Your task to perform on an android device: Open Amazon Image 0: 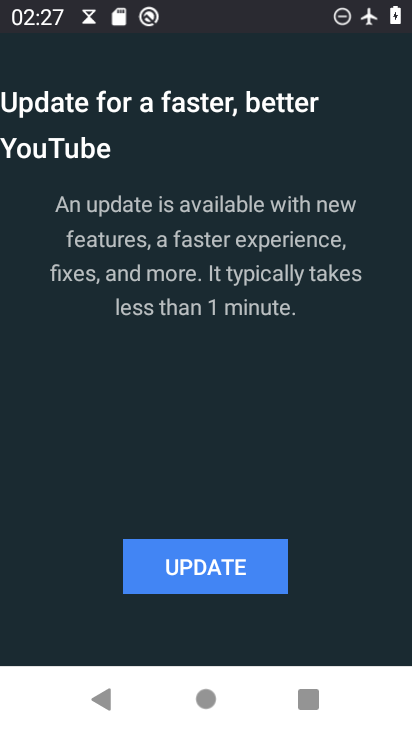
Step 0: press home button
Your task to perform on an android device: Open Amazon Image 1: 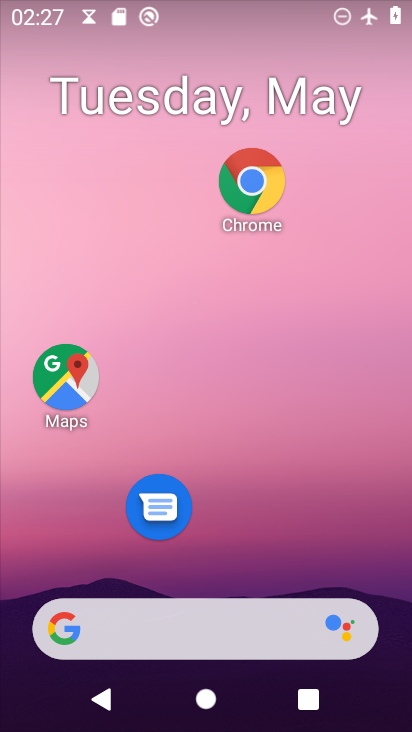
Step 1: click (252, 172)
Your task to perform on an android device: Open Amazon Image 2: 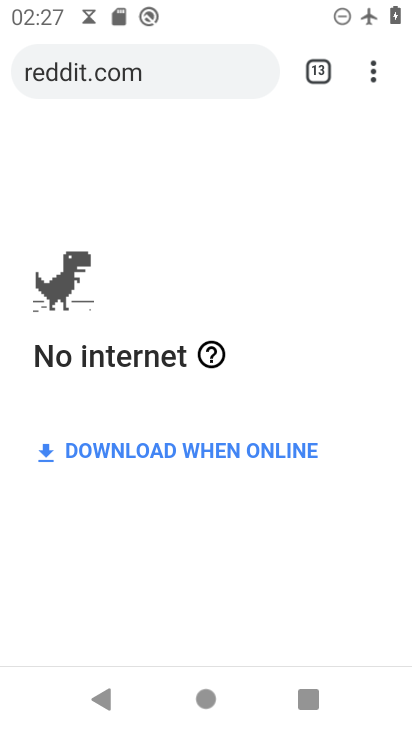
Step 2: click (371, 63)
Your task to perform on an android device: Open Amazon Image 3: 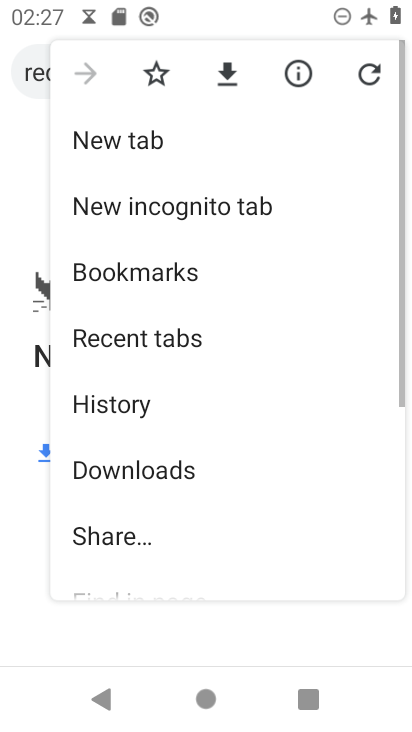
Step 3: click (145, 129)
Your task to perform on an android device: Open Amazon Image 4: 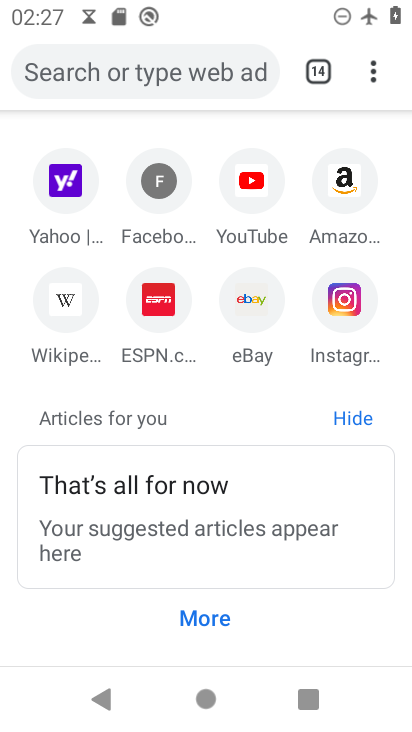
Step 4: click (333, 185)
Your task to perform on an android device: Open Amazon Image 5: 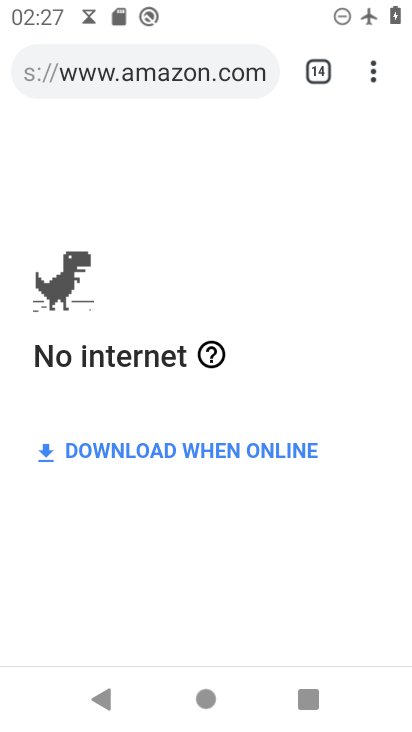
Step 5: task complete